Your task to perform on an android device: open the mobile data screen to see how much data has been used Image 0: 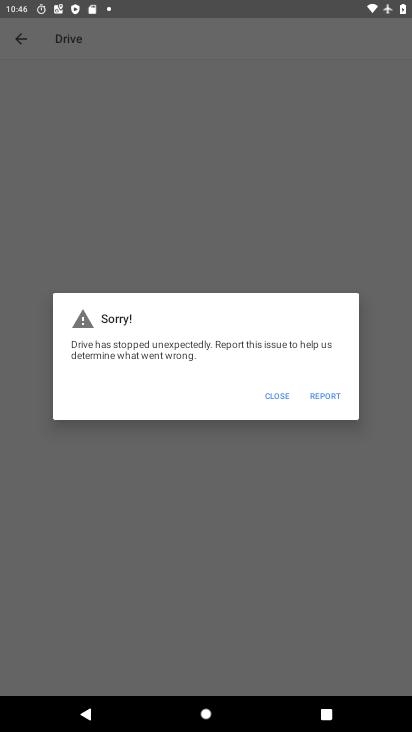
Step 0: press home button
Your task to perform on an android device: open the mobile data screen to see how much data has been used Image 1: 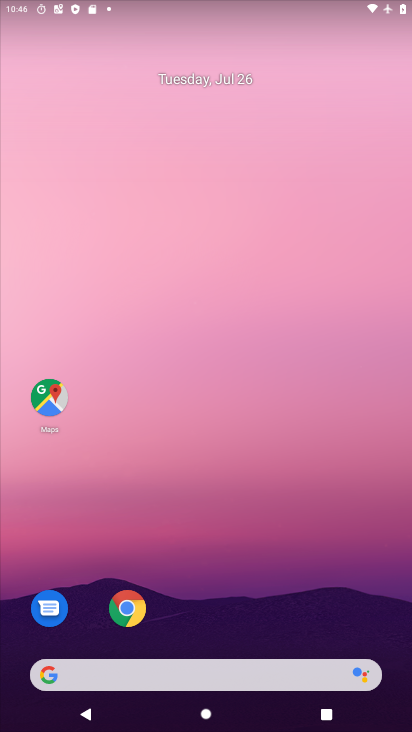
Step 1: drag from (205, 587) to (200, 120)
Your task to perform on an android device: open the mobile data screen to see how much data has been used Image 2: 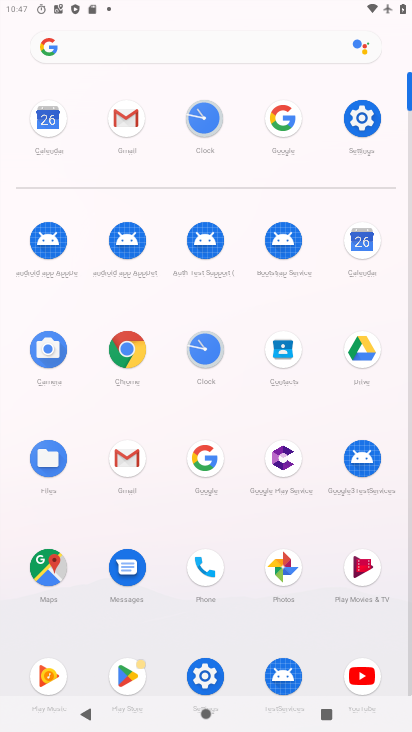
Step 2: click (354, 118)
Your task to perform on an android device: open the mobile data screen to see how much data has been used Image 3: 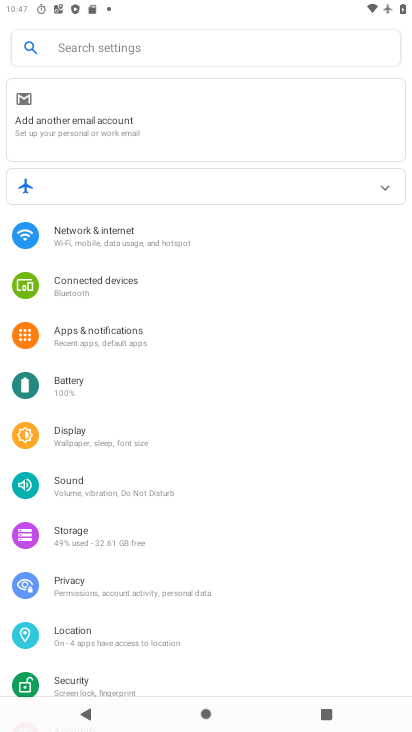
Step 3: click (170, 222)
Your task to perform on an android device: open the mobile data screen to see how much data has been used Image 4: 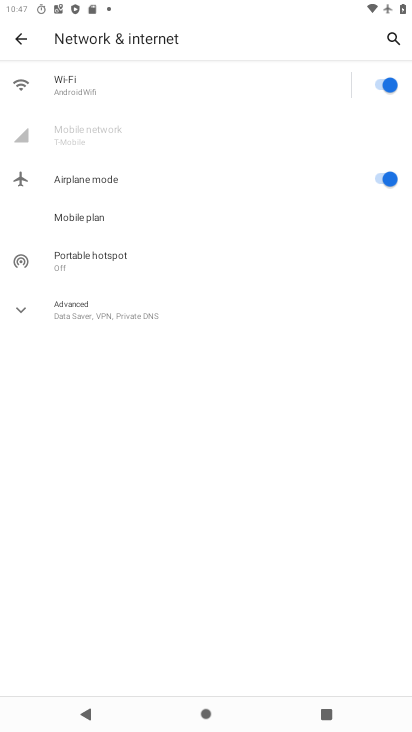
Step 4: click (103, 138)
Your task to perform on an android device: open the mobile data screen to see how much data has been used Image 5: 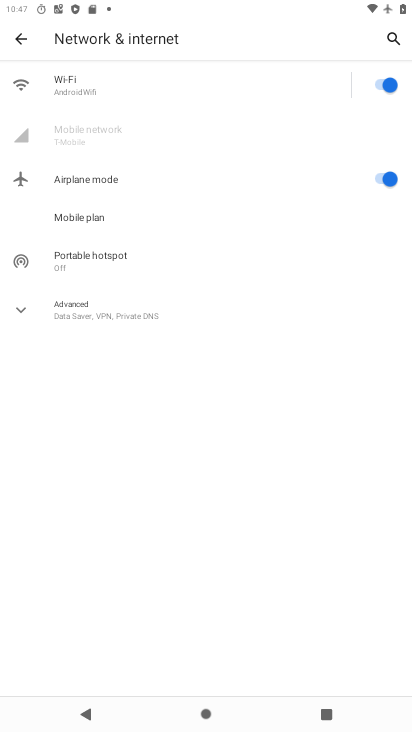
Step 5: task complete